Your task to perform on an android device: open app "ColorNote Notepad Notes" (install if not already installed) Image 0: 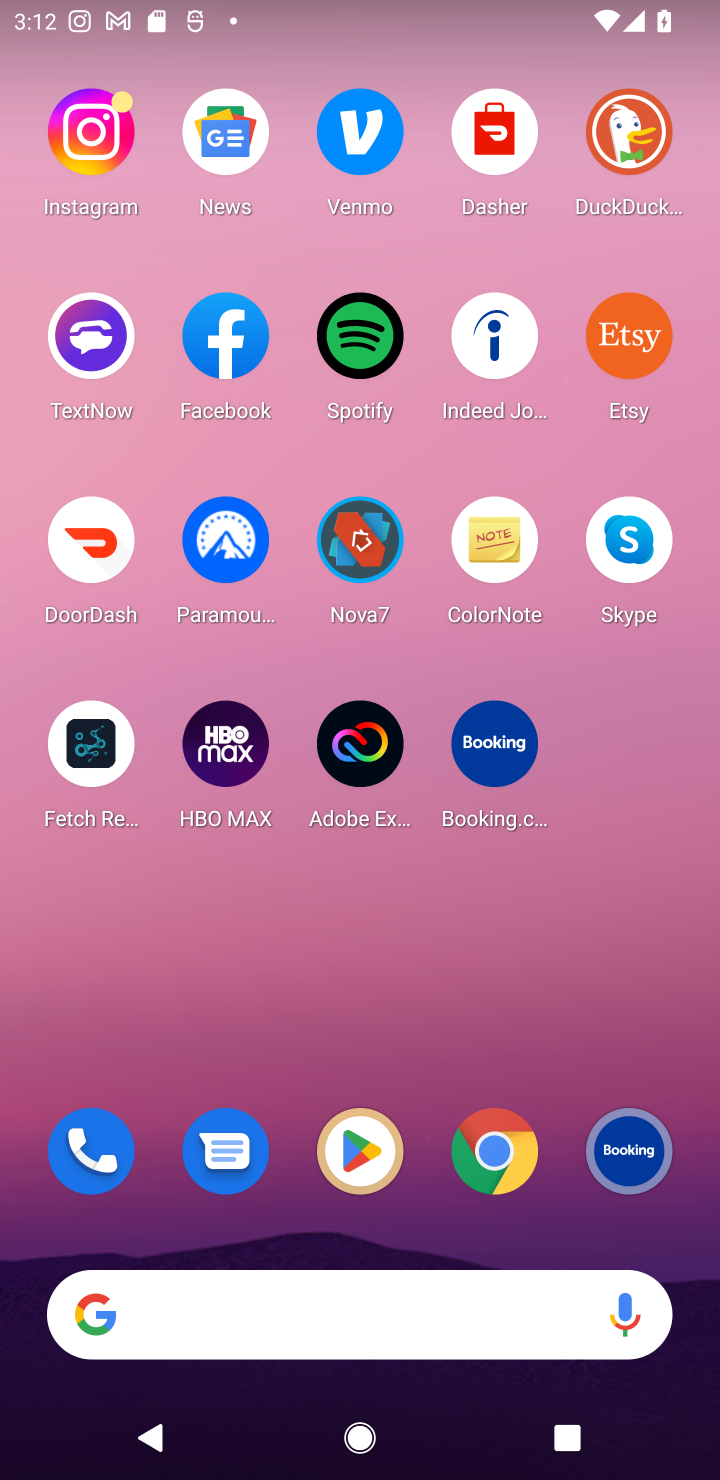
Step 0: press home button
Your task to perform on an android device: open app "ColorNote Notepad Notes" (install if not already installed) Image 1: 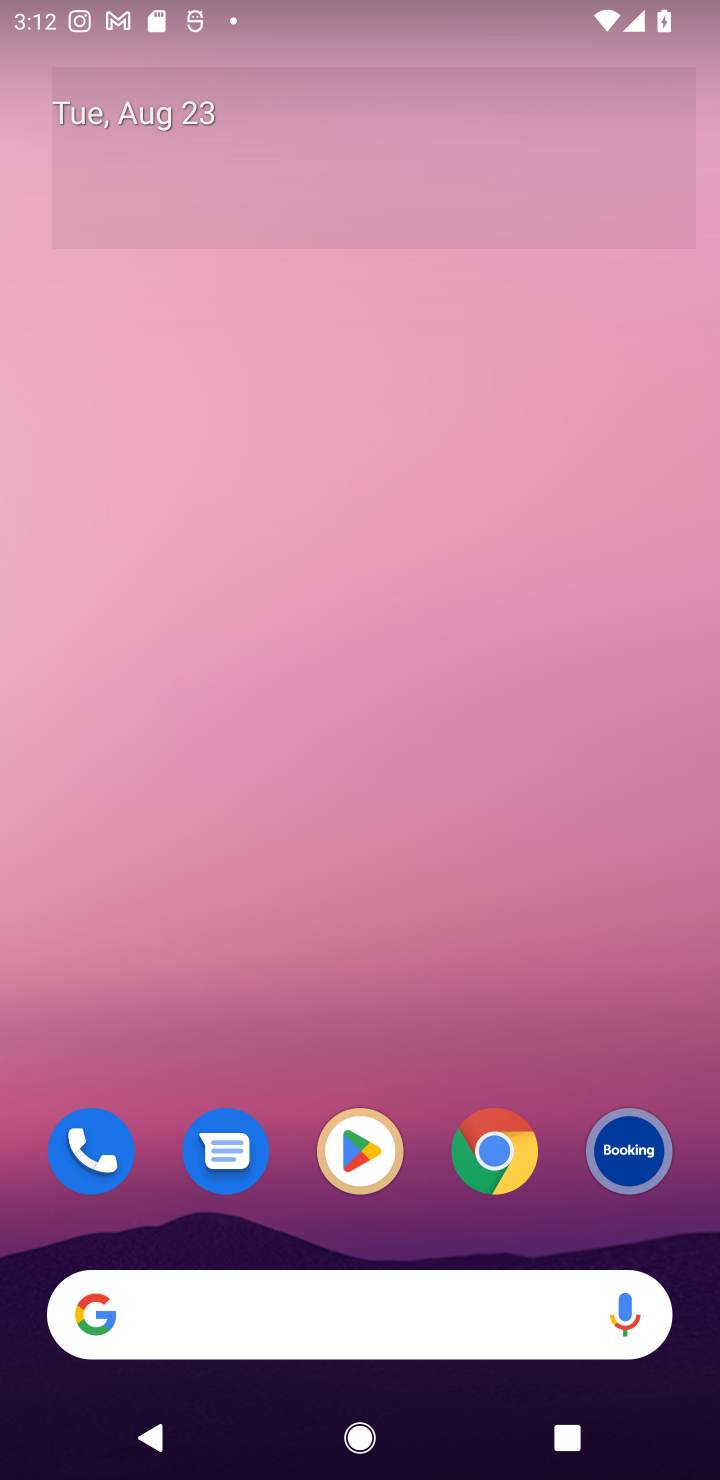
Step 1: click (352, 1160)
Your task to perform on an android device: open app "ColorNote Notepad Notes" (install if not already installed) Image 2: 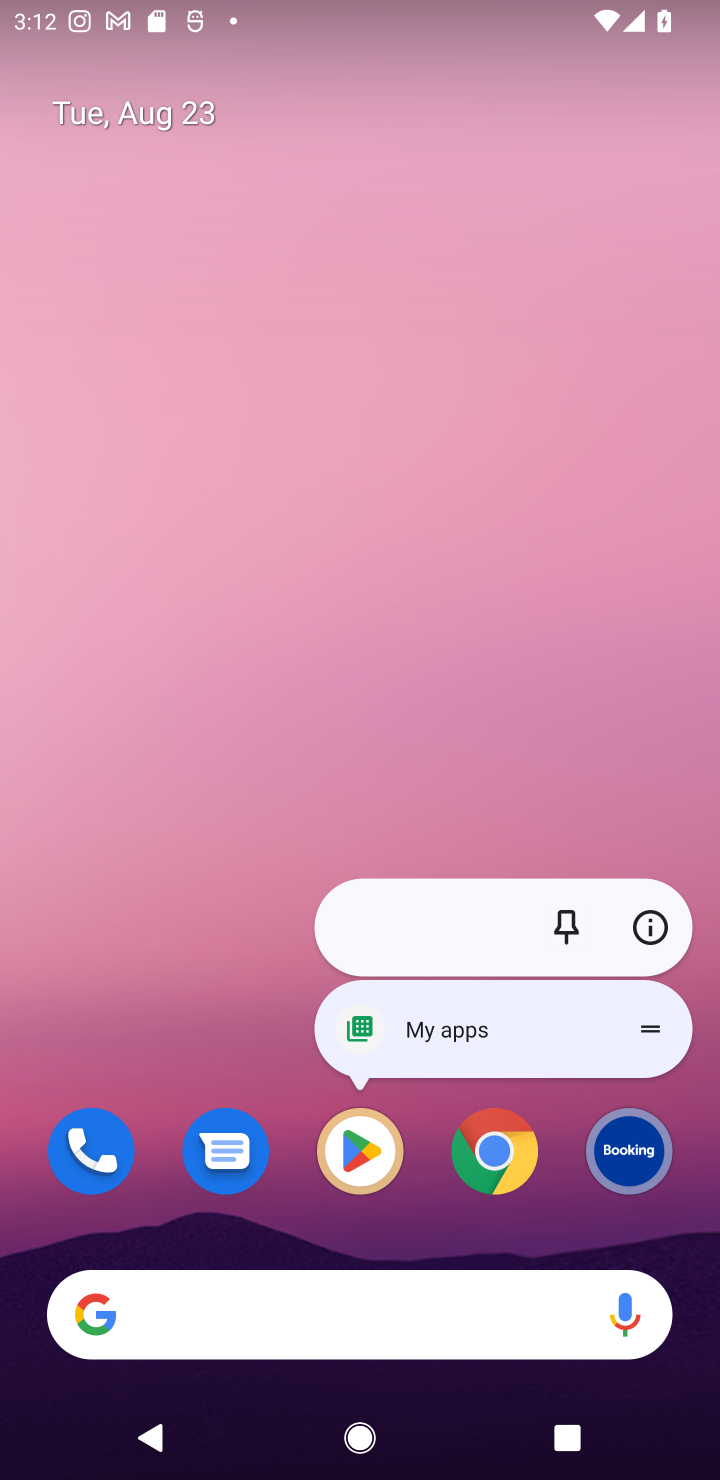
Step 2: click (359, 1155)
Your task to perform on an android device: open app "ColorNote Notepad Notes" (install if not already installed) Image 3: 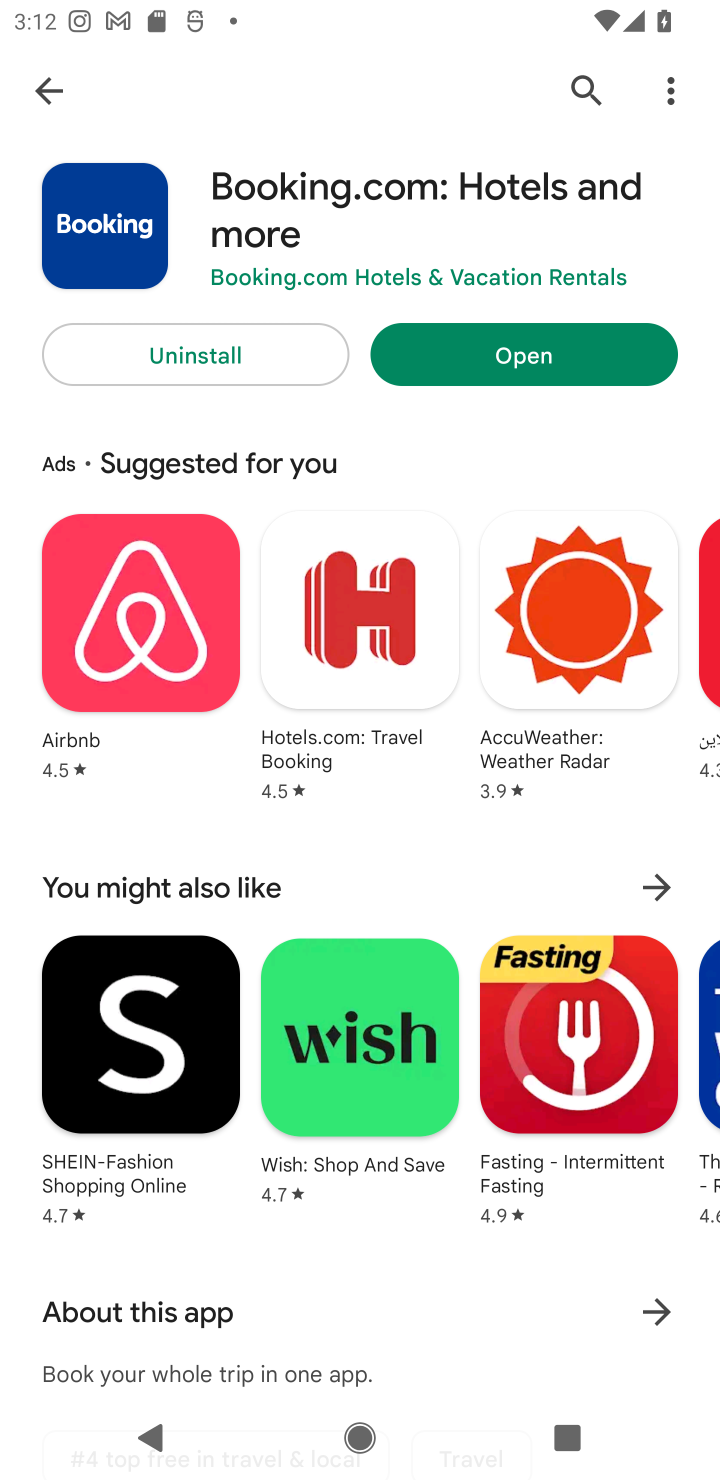
Step 3: click (577, 93)
Your task to perform on an android device: open app "ColorNote Notepad Notes" (install if not already installed) Image 4: 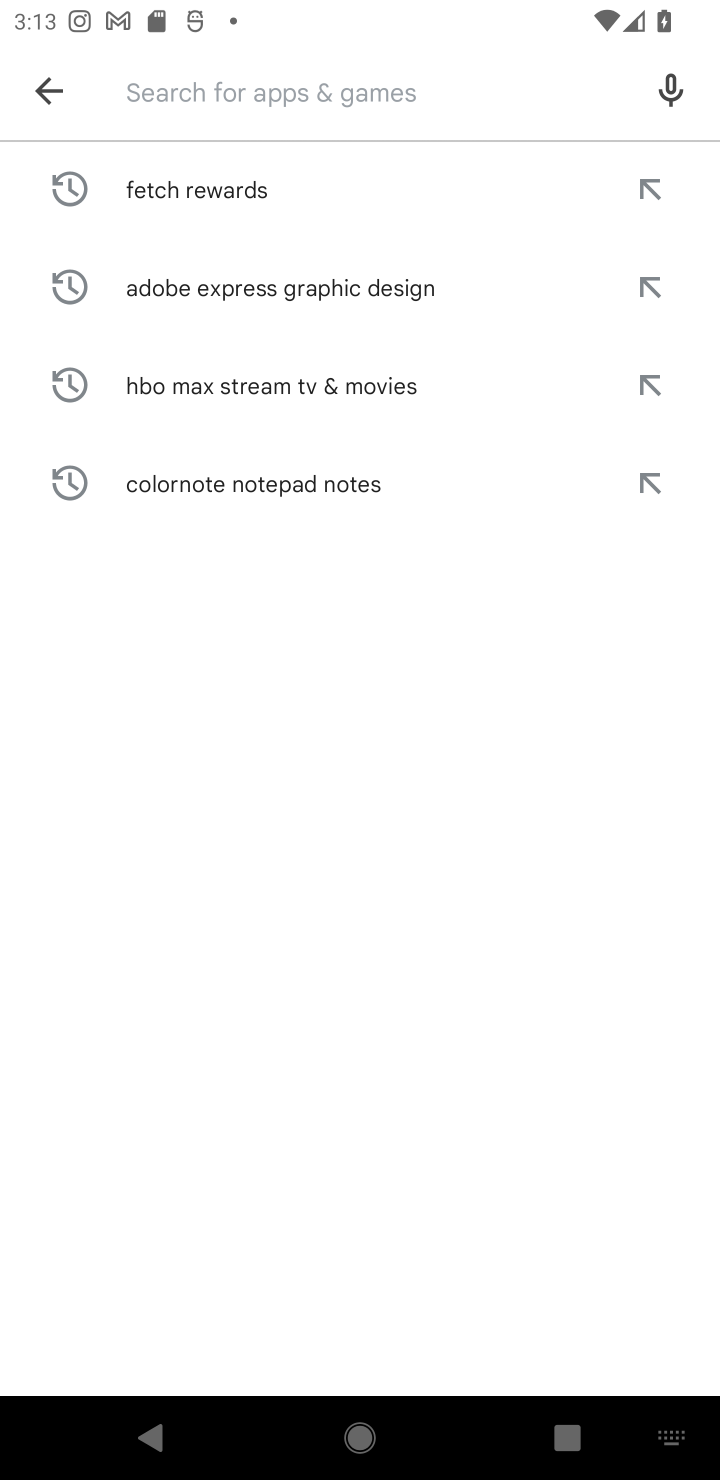
Step 4: type "ColorNote Notepad Notes"
Your task to perform on an android device: open app "ColorNote Notepad Notes" (install if not already installed) Image 5: 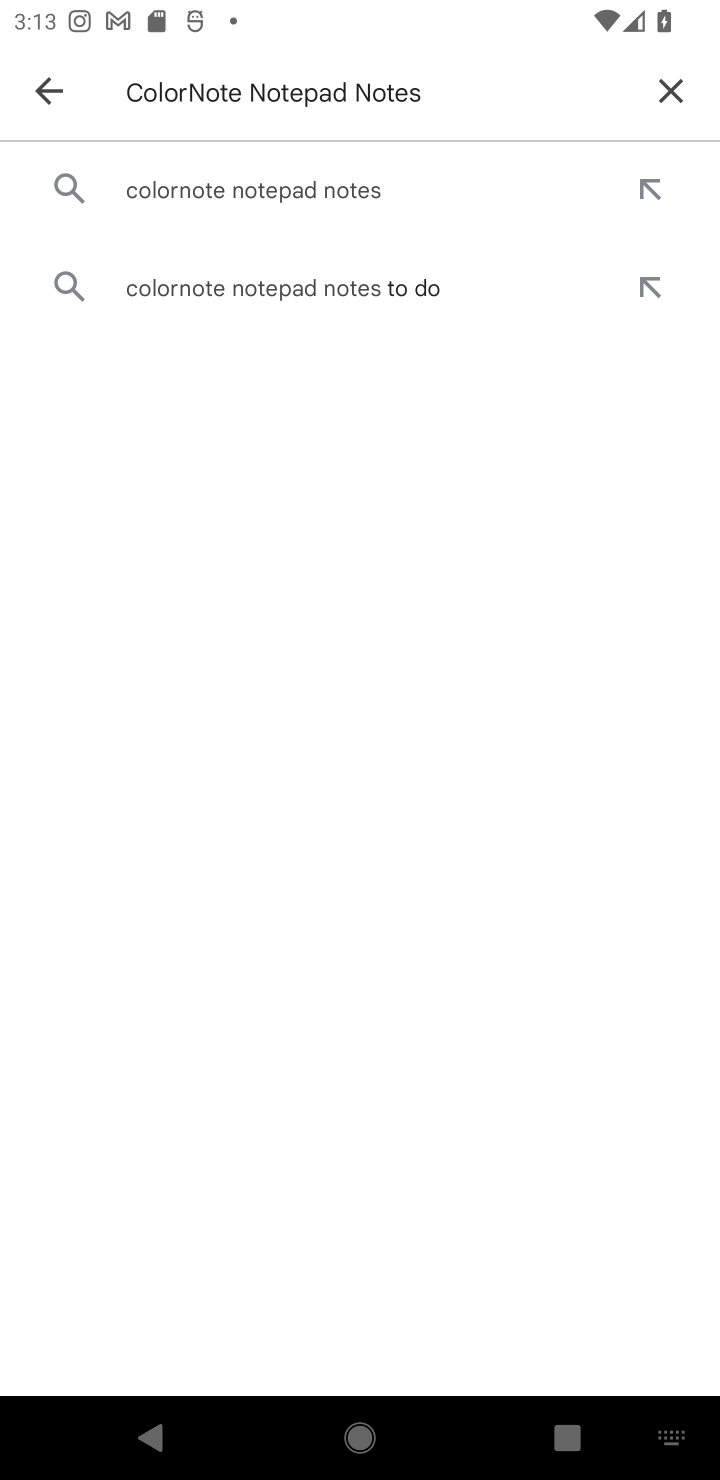
Step 5: click (305, 170)
Your task to perform on an android device: open app "ColorNote Notepad Notes" (install if not already installed) Image 6: 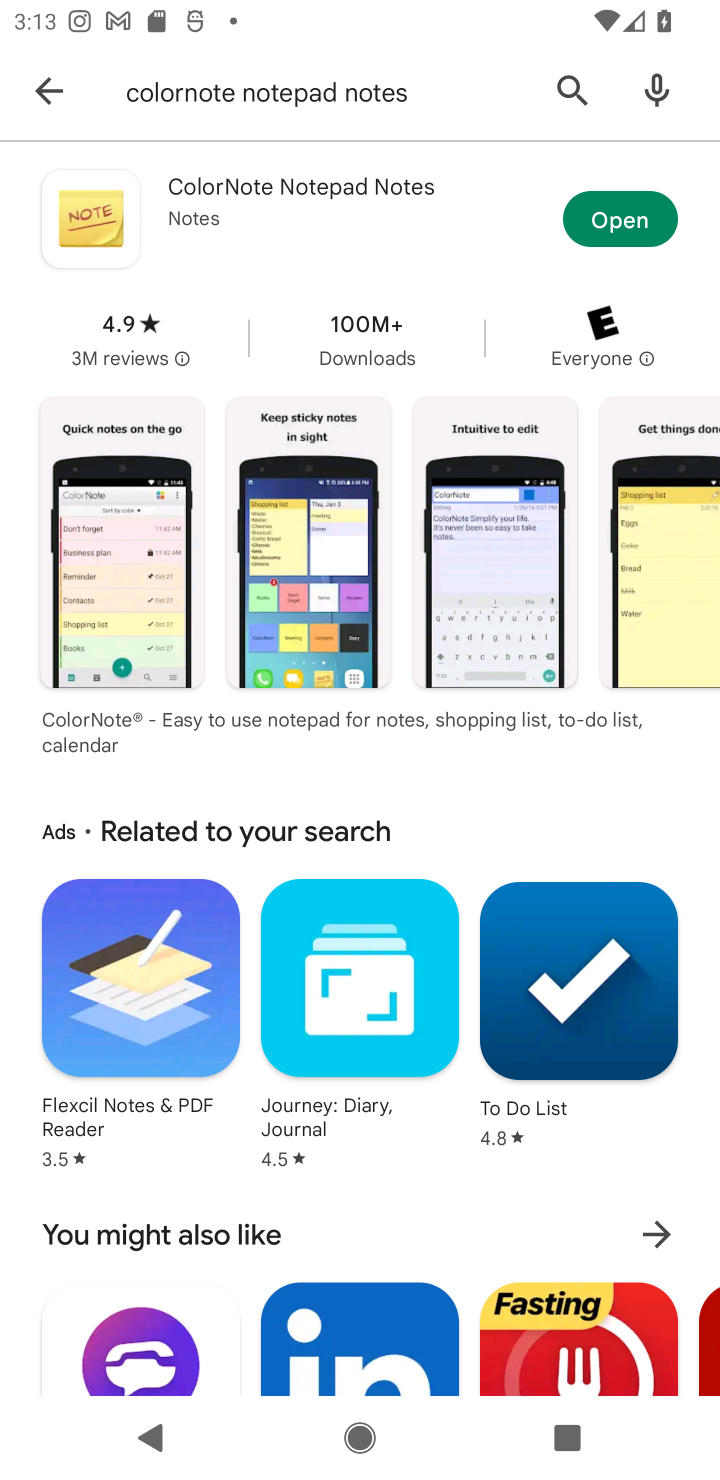
Step 6: click (614, 213)
Your task to perform on an android device: open app "ColorNote Notepad Notes" (install if not already installed) Image 7: 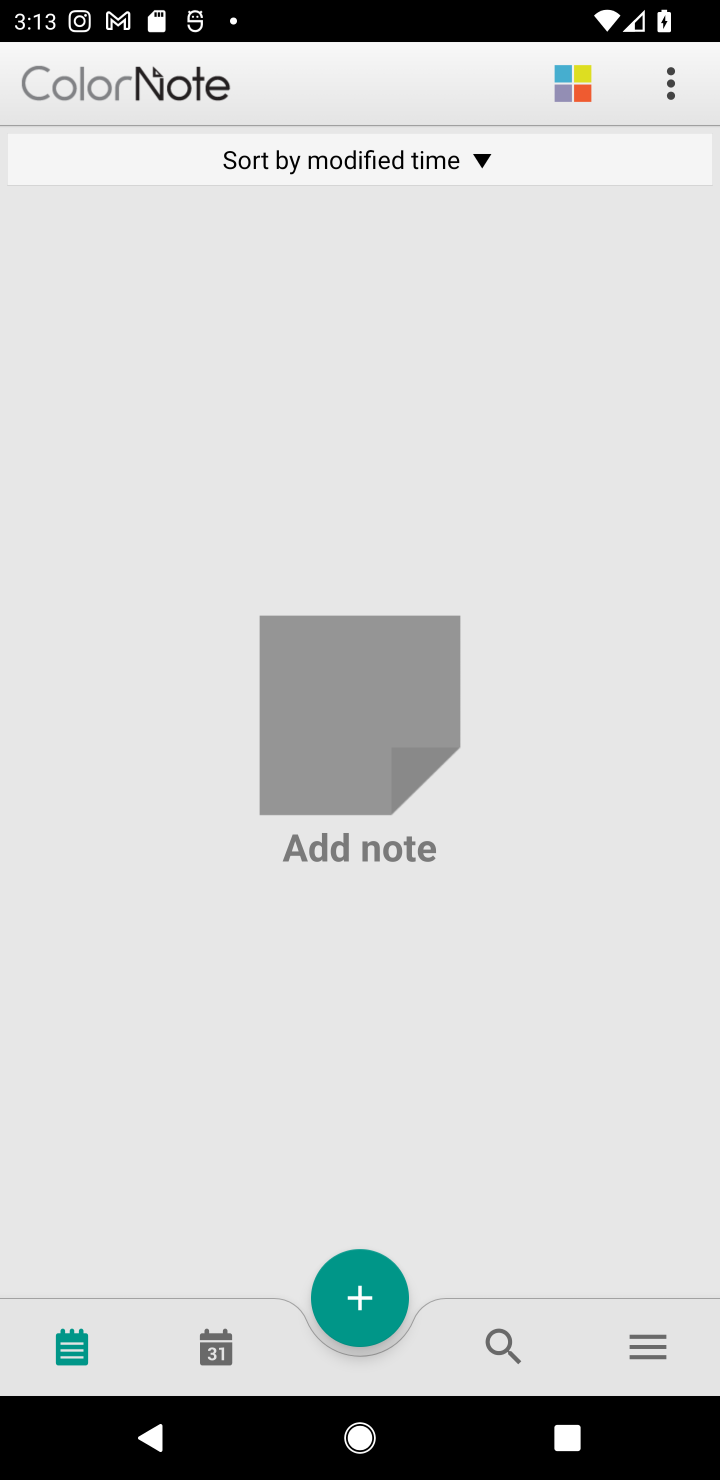
Step 7: task complete